Your task to perform on an android device: Open accessibility settings Image 0: 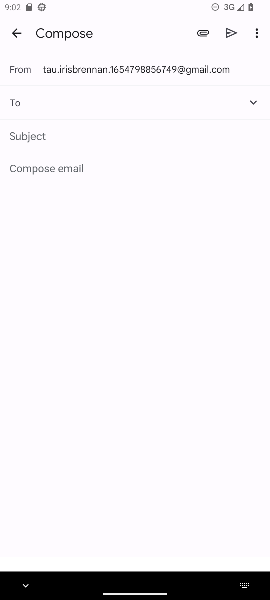
Step 0: press home button
Your task to perform on an android device: Open accessibility settings Image 1: 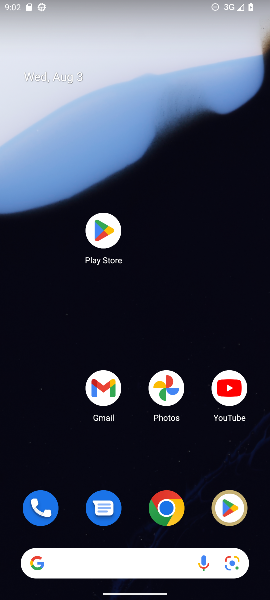
Step 1: drag from (135, 524) to (240, 26)
Your task to perform on an android device: Open accessibility settings Image 2: 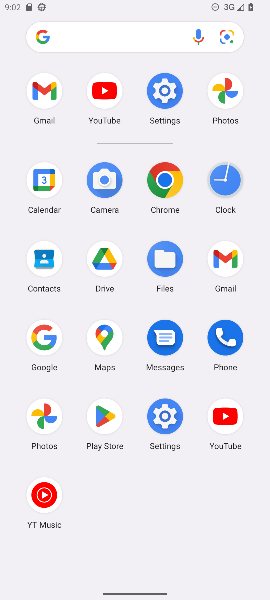
Step 2: click (175, 84)
Your task to perform on an android device: Open accessibility settings Image 3: 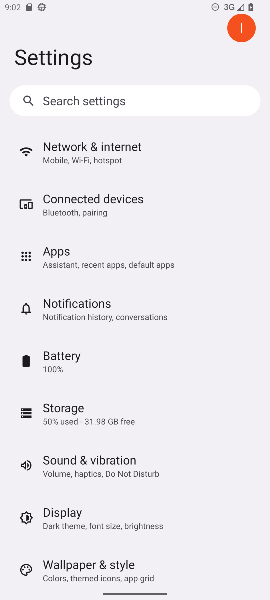
Step 3: drag from (152, 546) to (126, 203)
Your task to perform on an android device: Open accessibility settings Image 4: 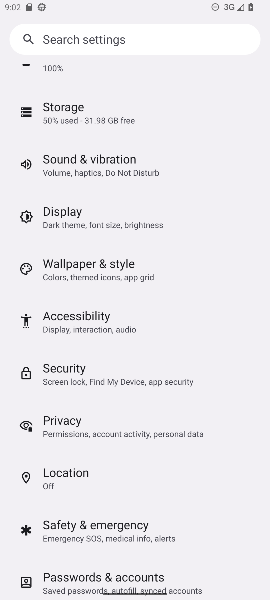
Step 4: drag from (92, 493) to (89, 331)
Your task to perform on an android device: Open accessibility settings Image 5: 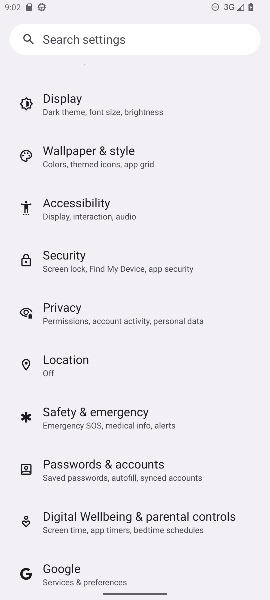
Step 5: click (76, 199)
Your task to perform on an android device: Open accessibility settings Image 6: 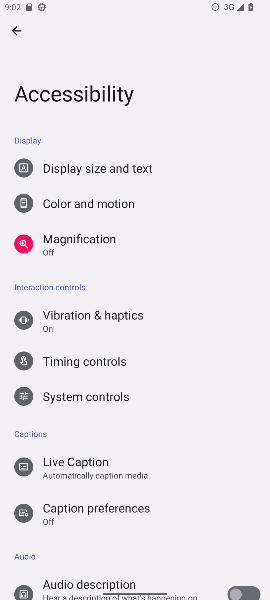
Step 6: task complete